Your task to perform on an android device: Open settings on Google Maps Image 0: 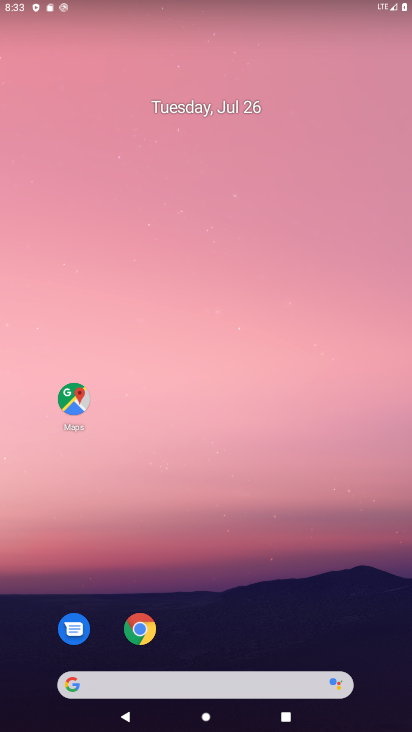
Step 0: drag from (237, 696) to (169, 63)
Your task to perform on an android device: Open settings on Google Maps Image 1: 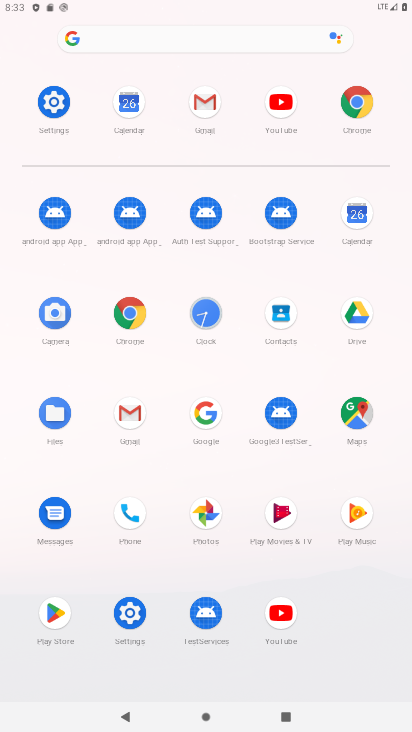
Step 1: click (362, 418)
Your task to perform on an android device: Open settings on Google Maps Image 2: 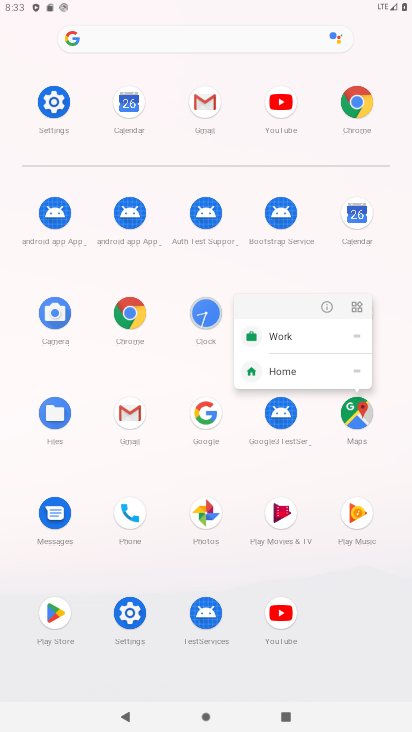
Step 2: click (345, 416)
Your task to perform on an android device: Open settings on Google Maps Image 3: 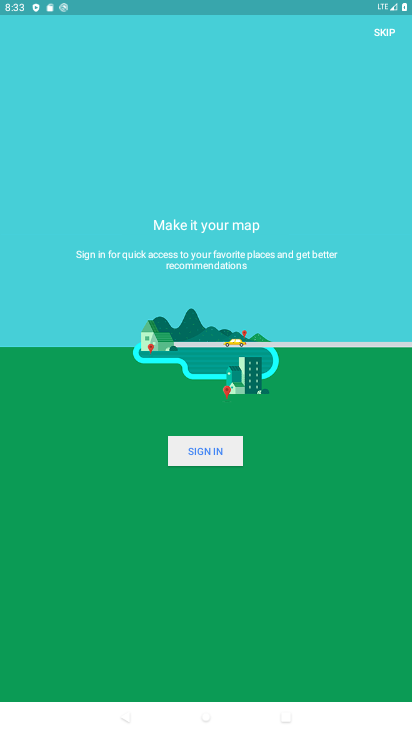
Step 3: click (201, 443)
Your task to perform on an android device: Open settings on Google Maps Image 4: 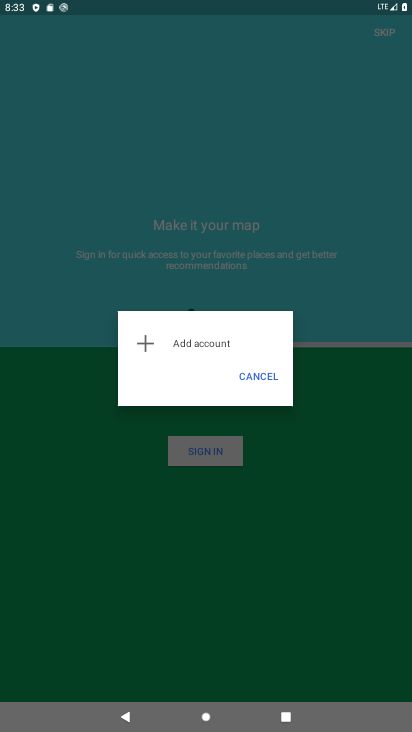
Step 4: task complete